Your task to perform on an android device: Show me recent news Image 0: 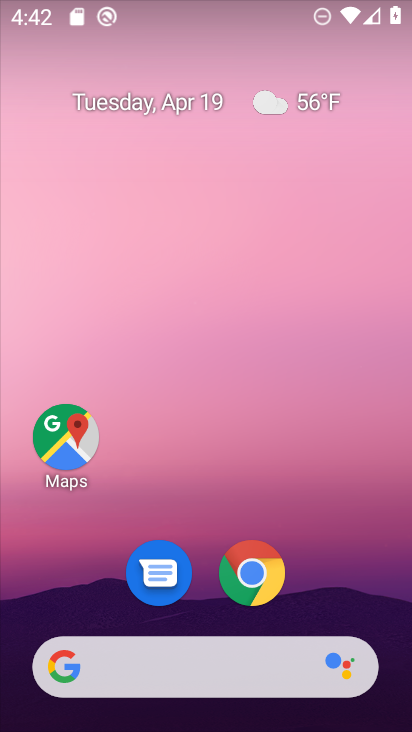
Step 0: drag from (62, 198) to (398, 257)
Your task to perform on an android device: Show me recent news Image 1: 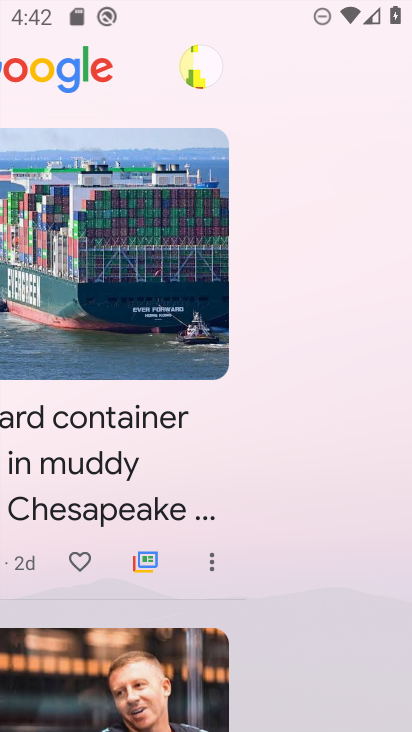
Step 1: task complete